Your task to perform on an android device: Open privacy settings Image 0: 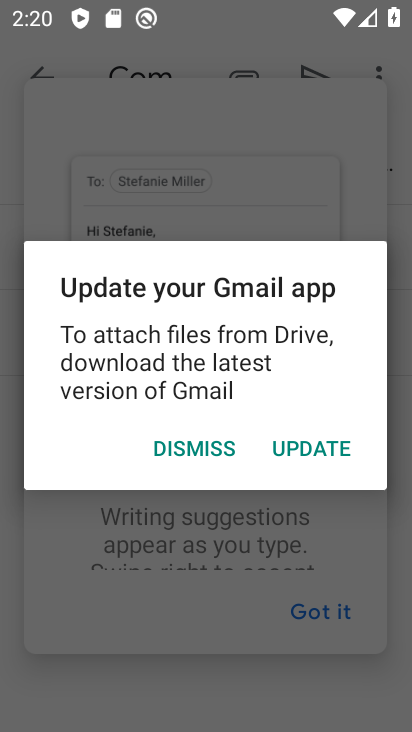
Step 0: press home button
Your task to perform on an android device: Open privacy settings Image 1: 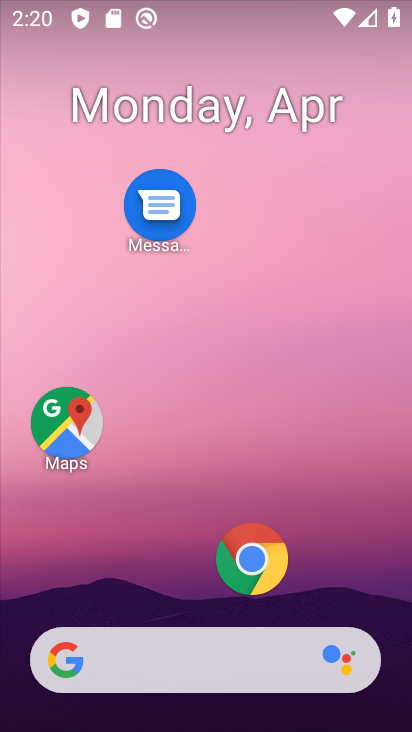
Step 1: drag from (171, 544) to (292, 67)
Your task to perform on an android device: Open privacy settings Image 2: 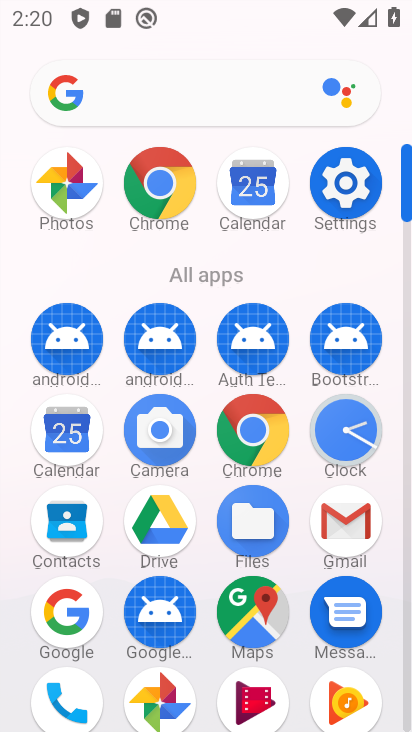
Step 2: click (340, 190)
Your task to perform on an android device: Open privacy settings Image 3: 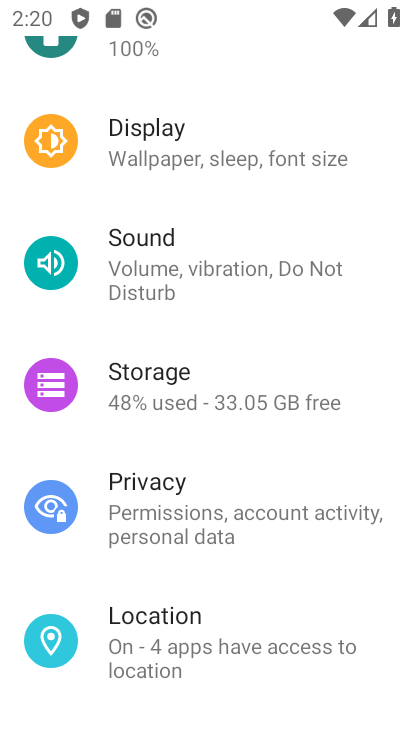
Step 3: click (181, 493)
Your task to perform on an android device: Open privacy settings Image 4: 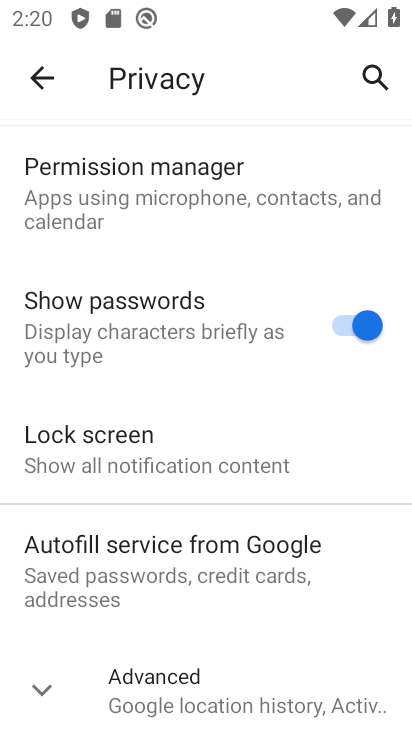
Step 4: task complete